Your task to perform on an android device: Go to sound settings Image 0: 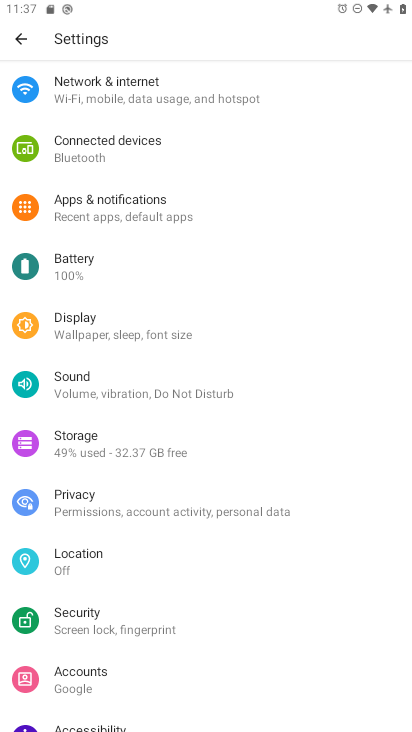
Step 0: drag from (299, 526) to (300, 282)
Your task to perform on an android device: Go to sound settings Image 1: 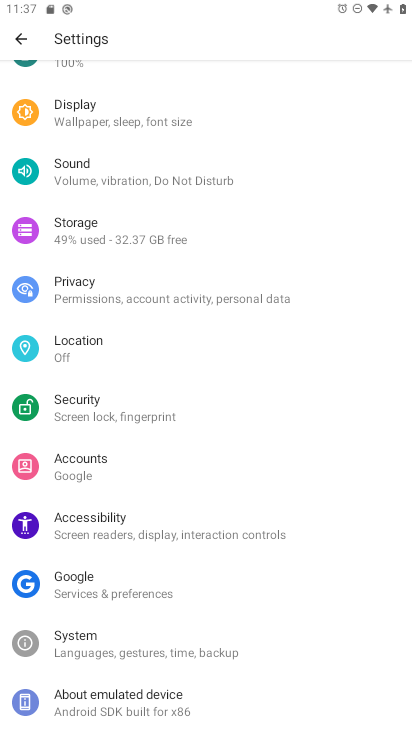
Step 1: click (177, 162)
Your task to perform on an android device: Go to sound settings Image 2: 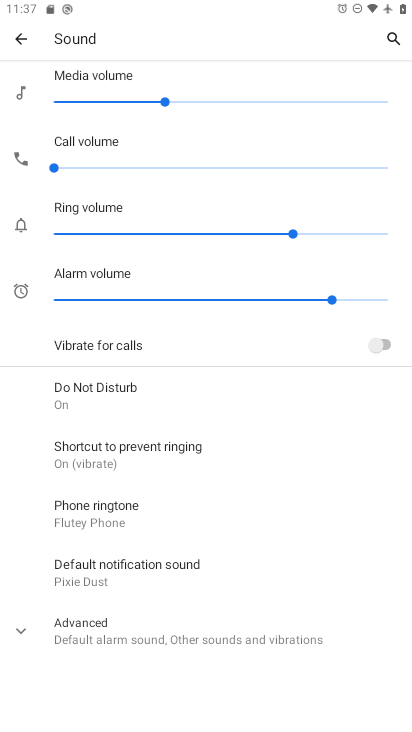
Step 2: task complete